Your task to perform on an android device: What's on my calendar today? Image 0: 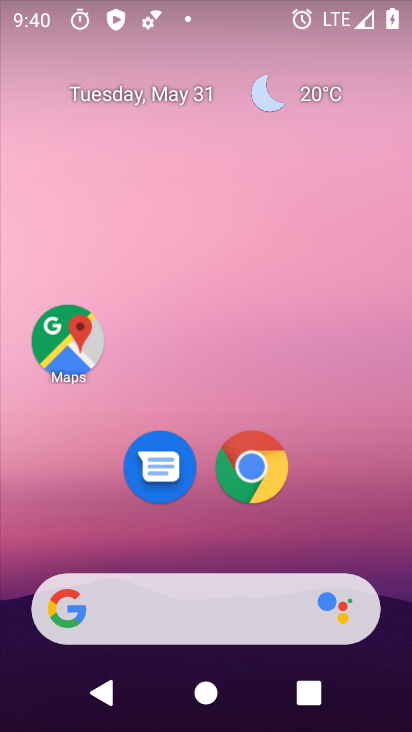
Step 0: drag from (235, 531) to (209, 86)
Your task to perform on an android device: What's on my calendar today? Image 1: 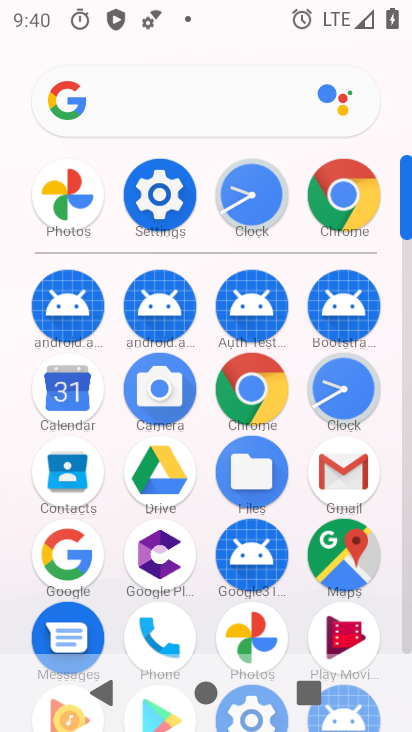
Step 1: click (66, 410)
Your task to perform on an android device: What's on my calendar today? Image 2: 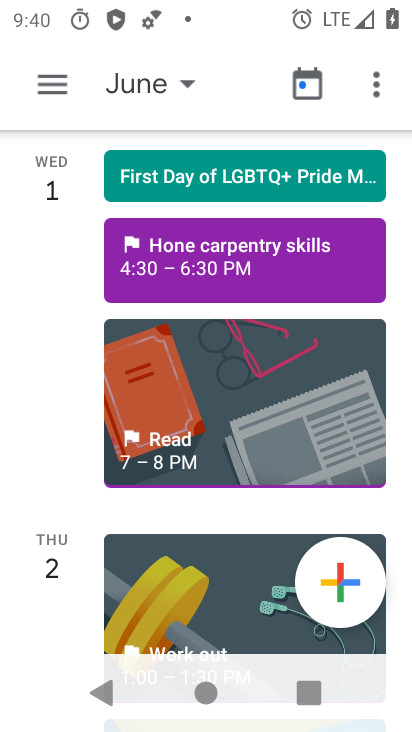
Step 2: drag from (206, 515) to (240, 278)
Your task to perform on an android device: What's on my calendar today? Image 3: 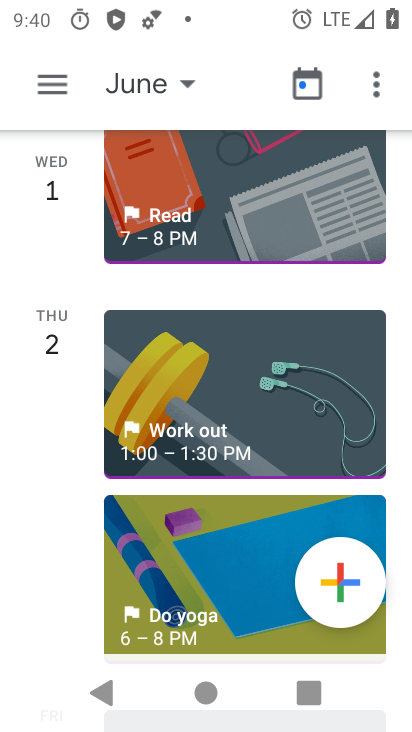
Step 3: click (118, 84)
Your task to perform on an android device: What's on my calendar today? Image 4: 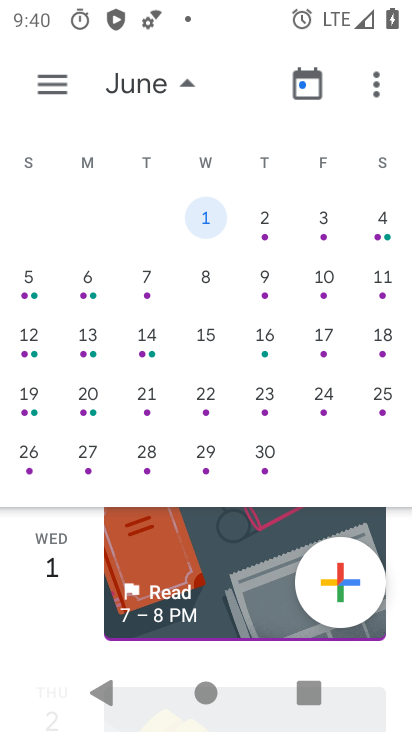
Step 4: click (197, 227)
Your task to perform on an android device: What's on my calendar today? Image 5: 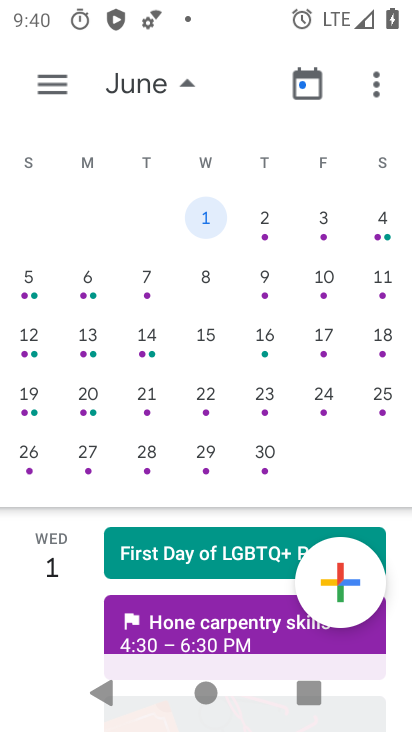
Step 5: task complete